Your task to perform on an android device: Go to calendar. Show me events next week Image 0: 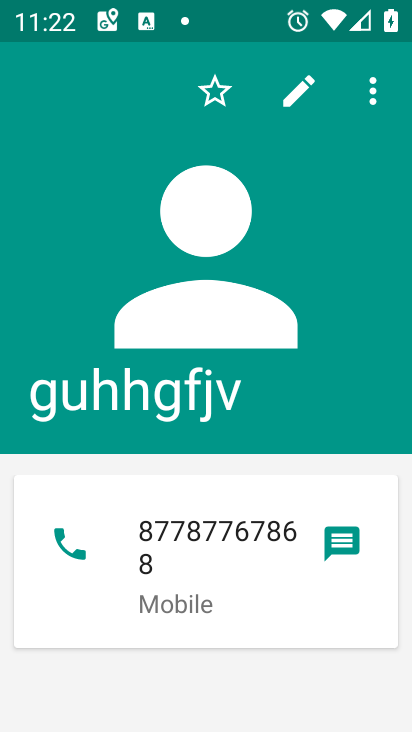
Step 0: press home button
Your task to perform on an android device: Go to calendar. Show me events next week Image 1: 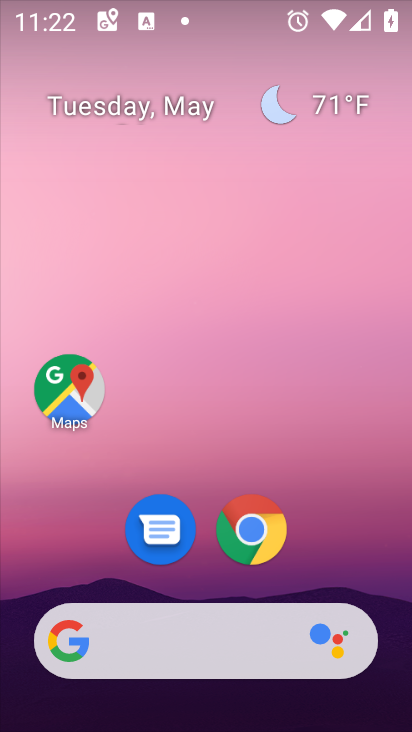
Step 1: drag from (224, 621) to (346, 120)
Your task to perform on an android device: Go to calendar. Show me events next week Image 2: 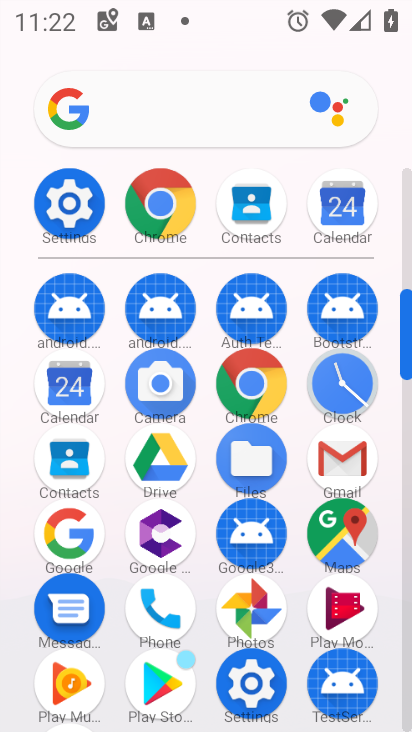
Step 2: click (65, 395)
Your task to perform on an android device: Go to calendar. Show me events next week Image 3: 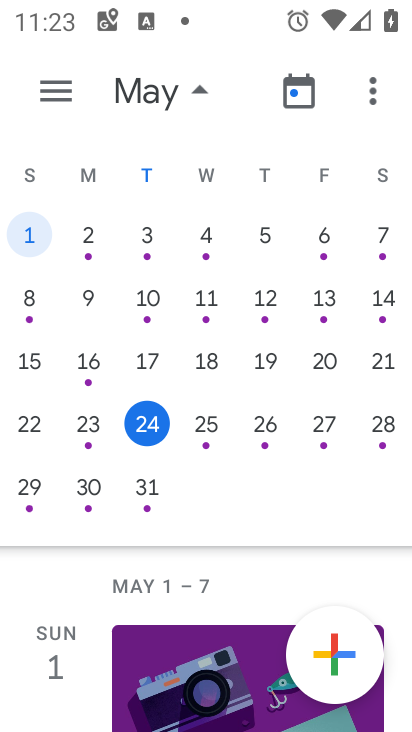
Step 3: click (42, 495)
Your task to perform on an android device: Go to calendar. Show me events next week Image 4: 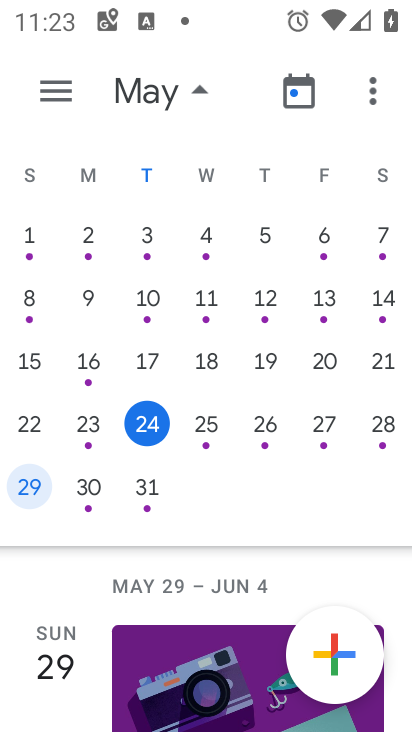
Step 4: task complete